Your task to perform on an android device: Show me the alarms in the clock app Image 0: 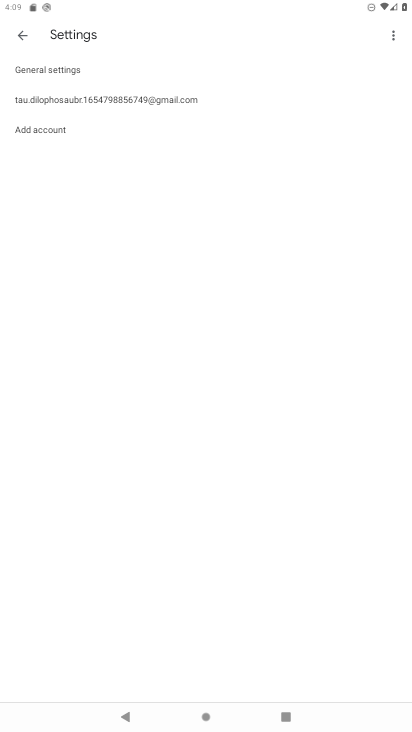
Step 0: press home button
Your task to perform on an android device: Show me the alarms in the clock app Image 1: 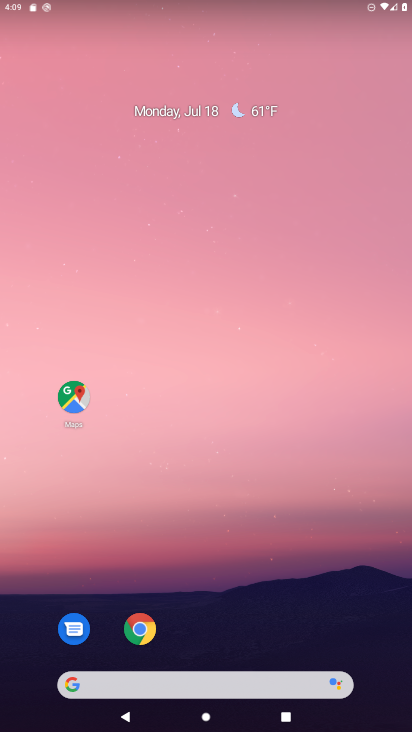
Step 1: drag from (194, 667) to (253, 152)
Your task to perform on an android device: Show me the alarms in the clock app Image 2: 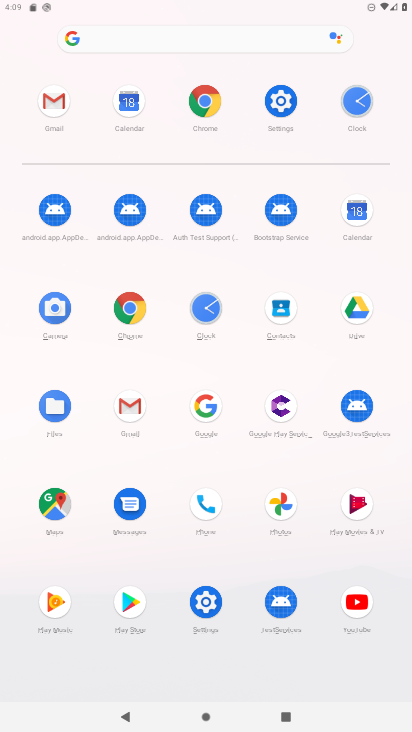
Step 2: click (206, 329)
Your task to perform on an android device: Show me the alarms in the clock app Image 3: 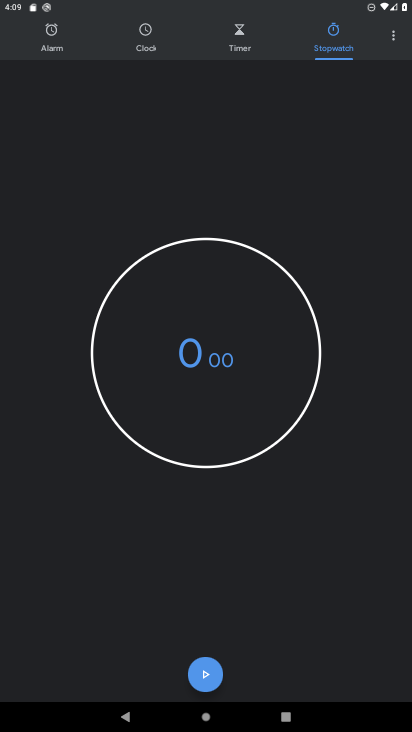
Step 3: click (48, 44)
Your task to perform on an android device: Show me the alarms in the clock app Image 4: 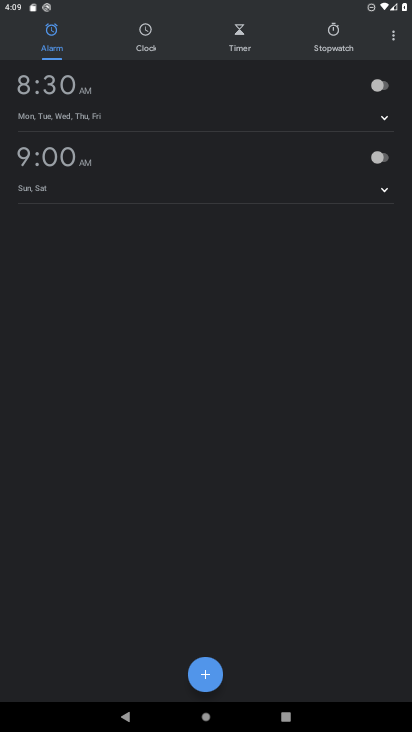
Step 4: task complete